Your task to perform on an android device: Find the nearest electronics store that's open tomorrow Image 0: 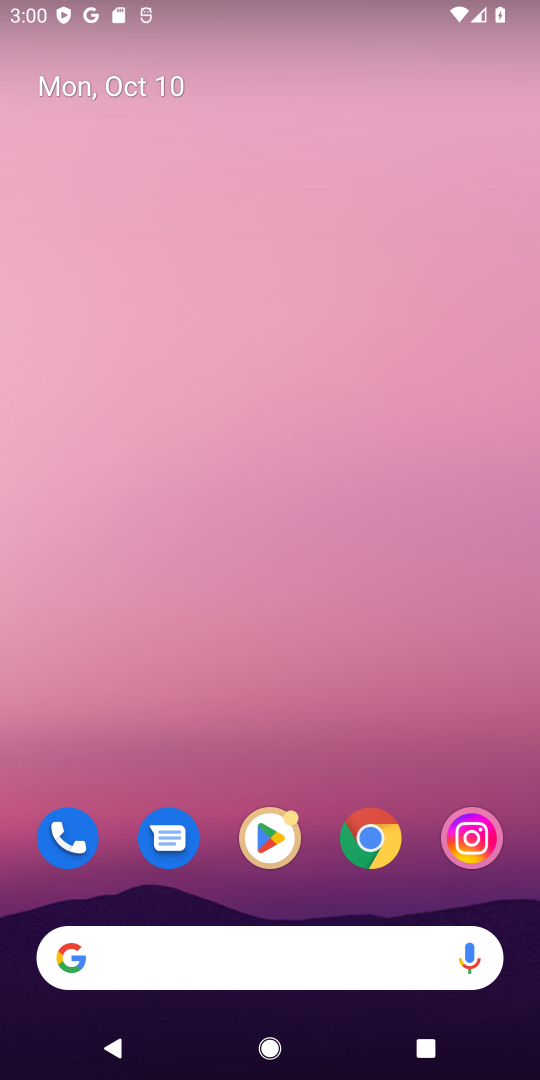
Step 0: click (233, 955)
Your task to perform on an android device: Find the nearest electronics store that's open tomorrow Image 1: 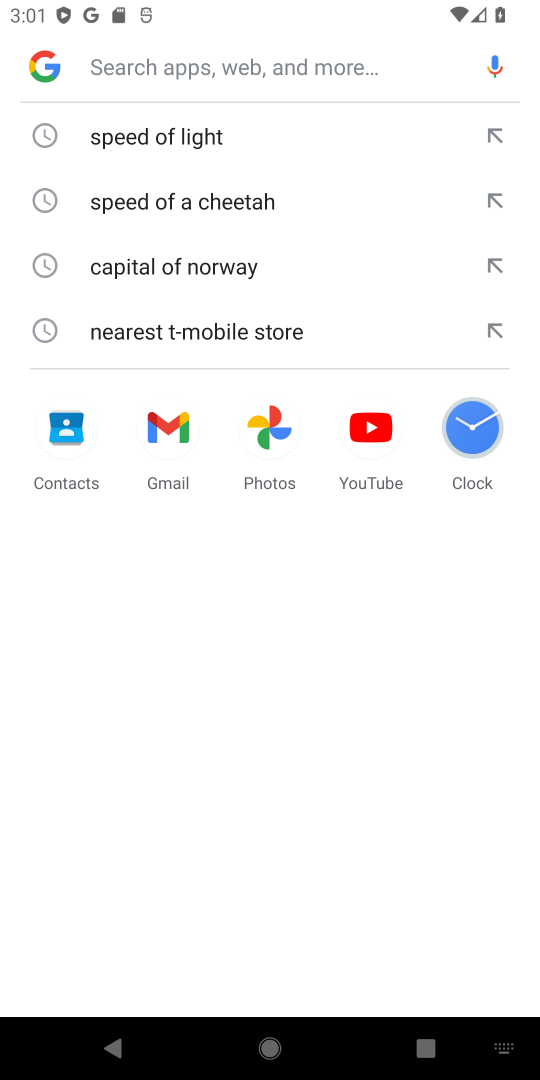
Step 1: type "nearest electronics store"
Your task to perform on an android device: Find the nearest electronics store that's open tomorrow Image 2: 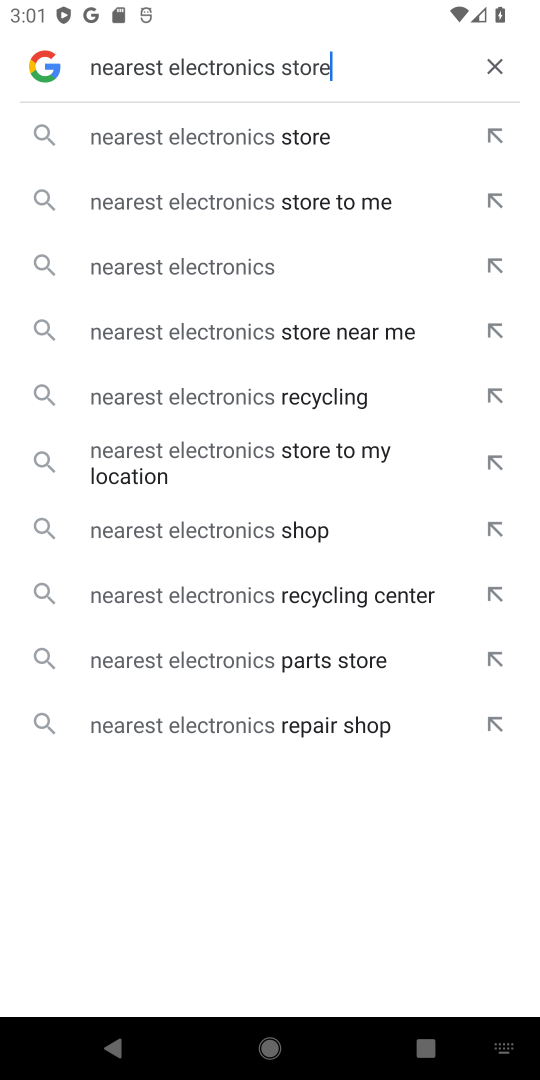
Step 2: type ""
Your task to perform on an android device: Find the nearest electronics store that's open tomorrow Image 3: 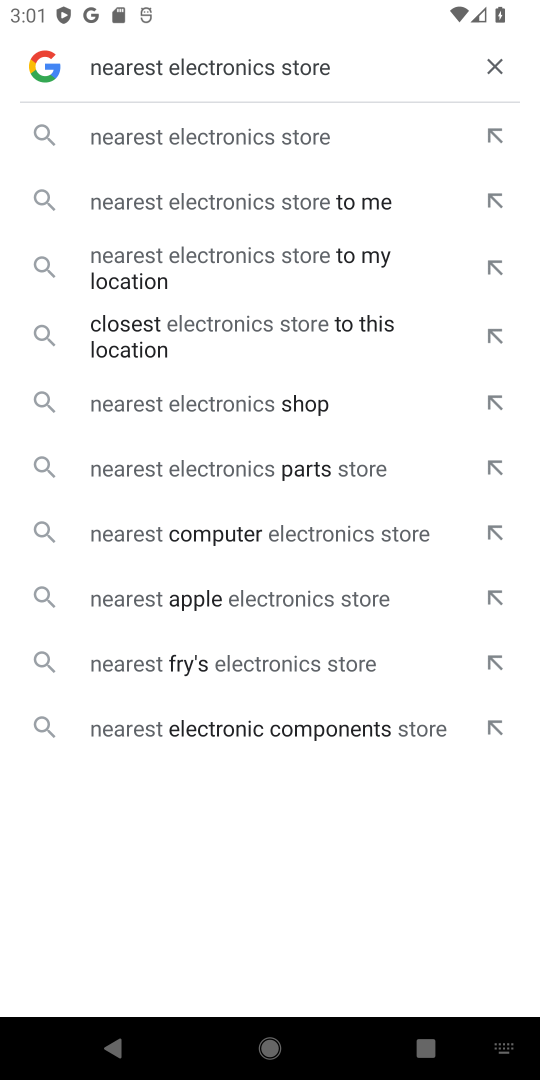
Step 3: click (348, 134)
Your task to perform on an android device: Find the nearest electronics store that's open tomorrow Image 4: 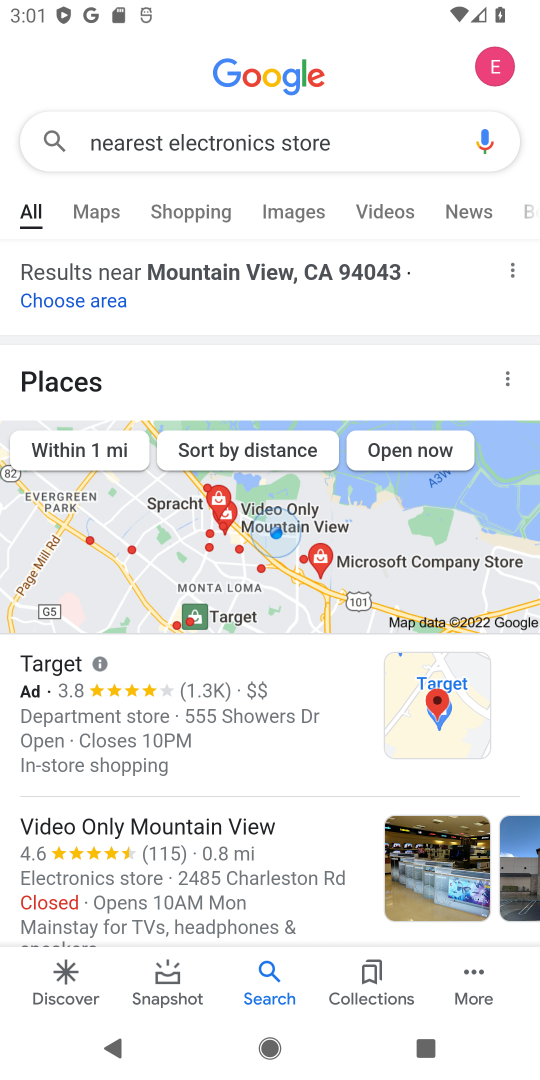
Step 4: task complete